Your task to perform on an android device: Play the last video I watched on Youtube Image 0: 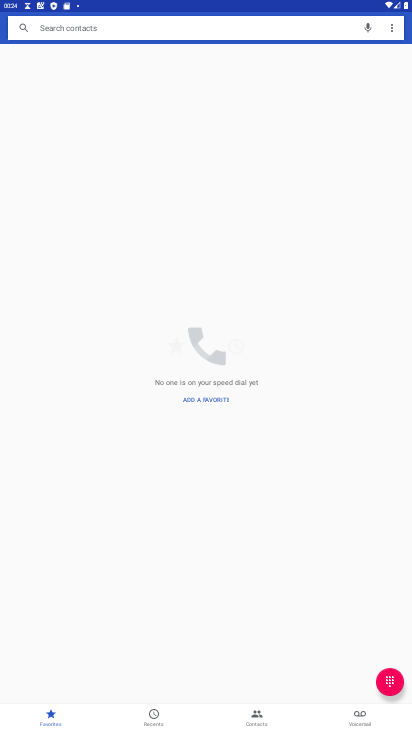
Step 0: press home button
Your task to perform on an android device: Play the last video I watched on Youtube Image 1: 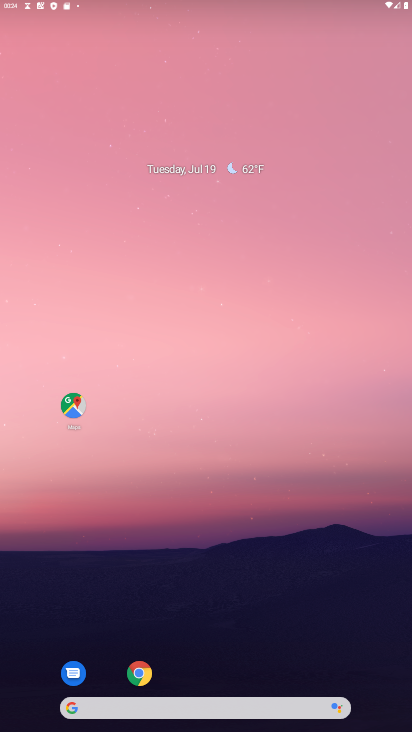
Step 1: drag from (286, 554) to (272, 277)
Your task to perform on an android device: Play the last video I watched on Youtube Image 2: 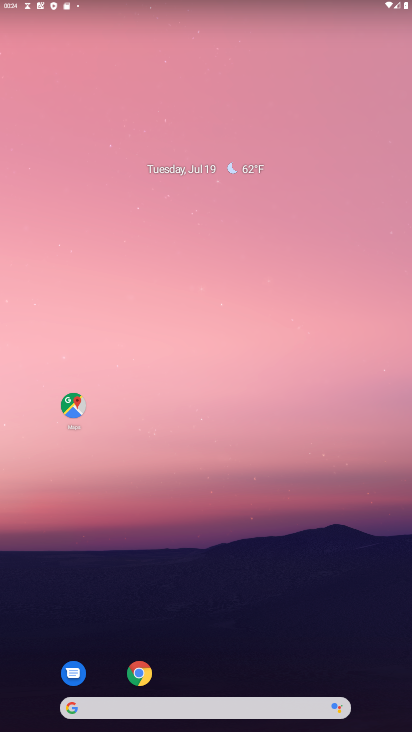
Step 2: drag from (156, 690) to (265, 258)
Your task to perform on an android device: Play the last video I watched on Youtube Image 3: 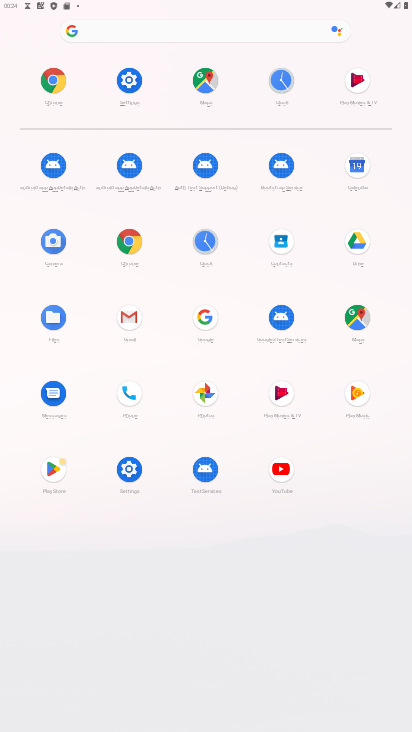
Step 3: click (272, 459)
Your task to perform on an android device: Play the last video I watched on Youtube Image 4: 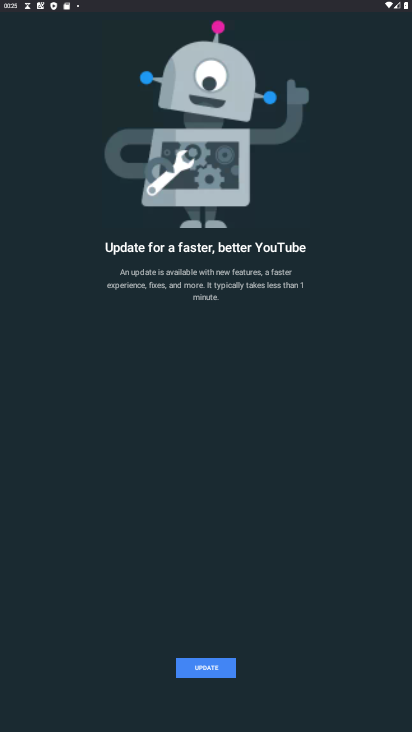
Step 4: task complete